Your task to perform on an android device: Is it going to rain tomorrow? Image 0: 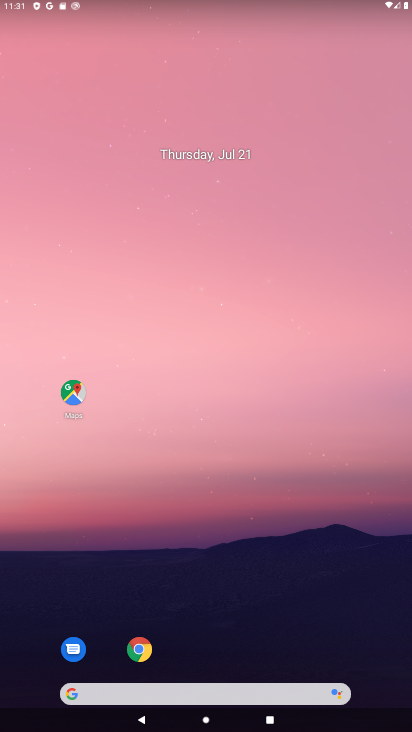
Step 0: drag from (308, 597) to (293, 130)
Your task to perform on an android device: Is it going to rain tomorrow? Image 1: 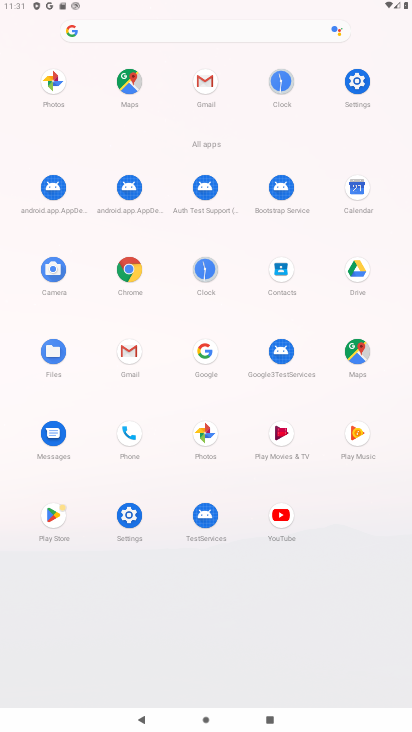
Step 1: click (125, 270)
Your task to perform on an android device: Is it going to rain tomorrow? Image 2: 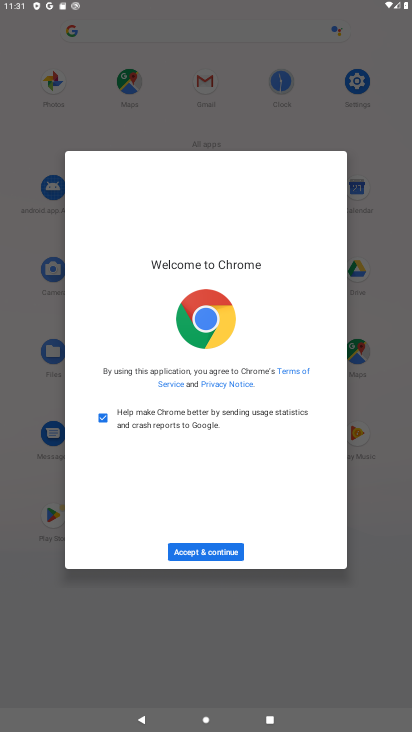
Step 2: click (197, 552)
Your task to perform on an android device: Is it going to rain tomorrow? Image 3: 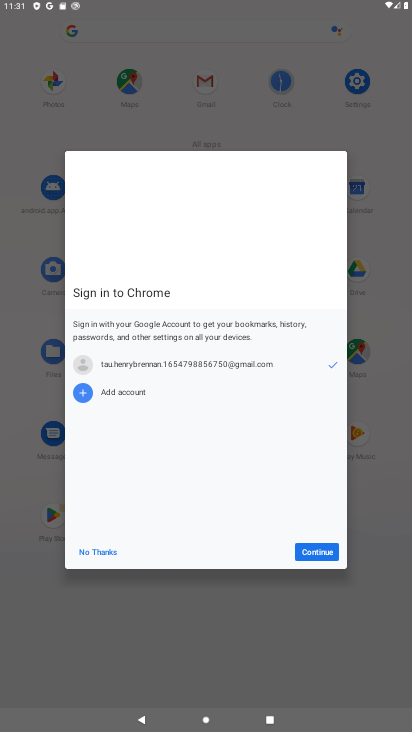
Step 3: click (319, 542)
Your task to perform on an android device: Is it going to rain tomorrow? Image 4: 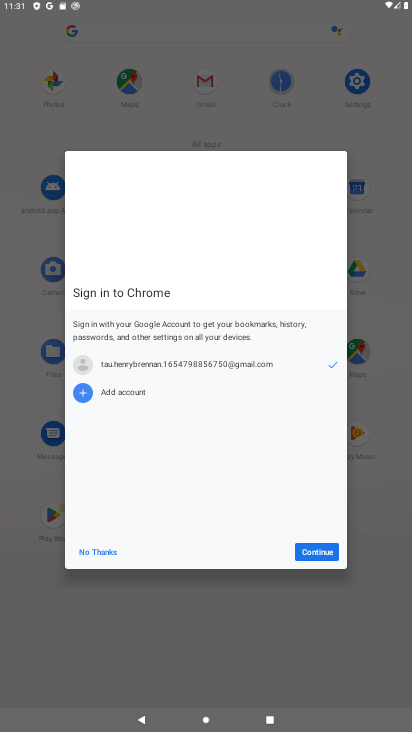
Step 4: click (319, 545)
Your task to perform on an android device: Is it going to rain tomorrow? Image 5: 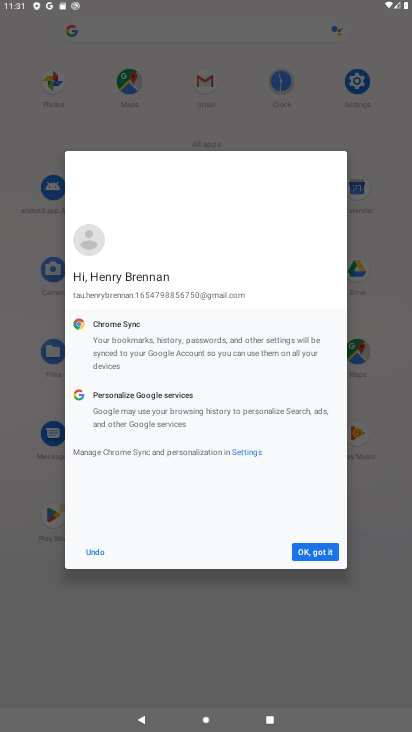
Step 5: click (322, 553)
Your task to perform on an android device: Is it going to rain tomorrow? Image 6: 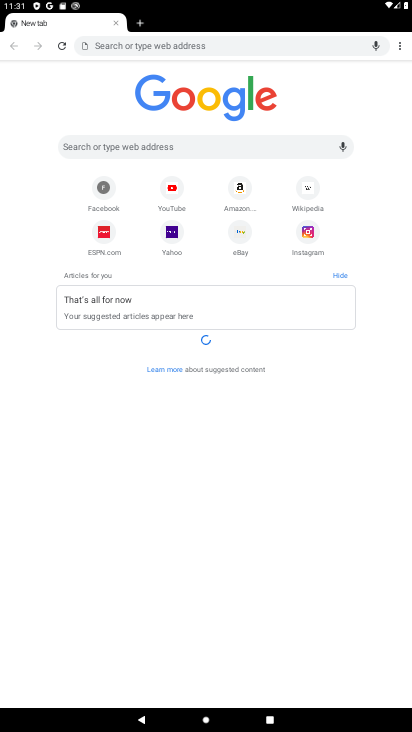
Step 6: click (201, 46)
Your task to perform on an android device: Is it going to rain tomorrow? Image 7: 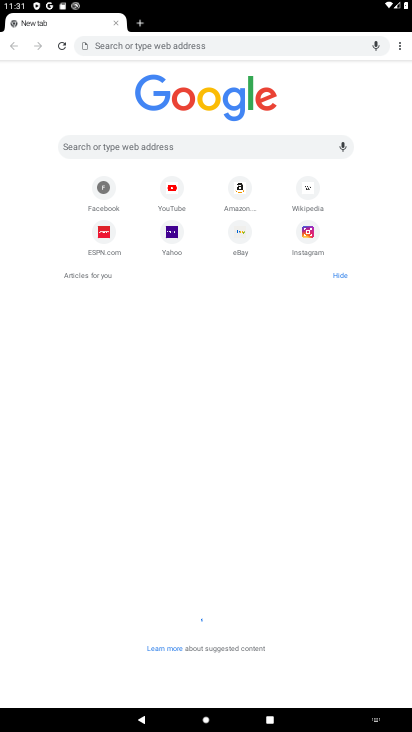
Step 7: type "weather"
Your task to perform on an android device: Is it going to rain tomorrow? Image 8: 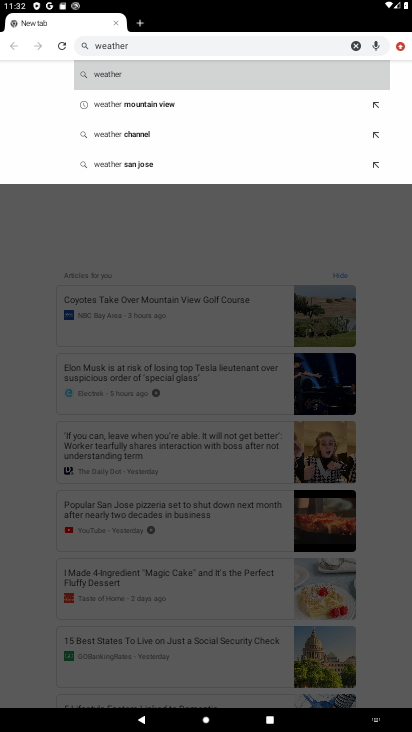
Step 8: click (117, 80)
Your task to perform on an android device: Is it going to rain tomorrow? Image 9: 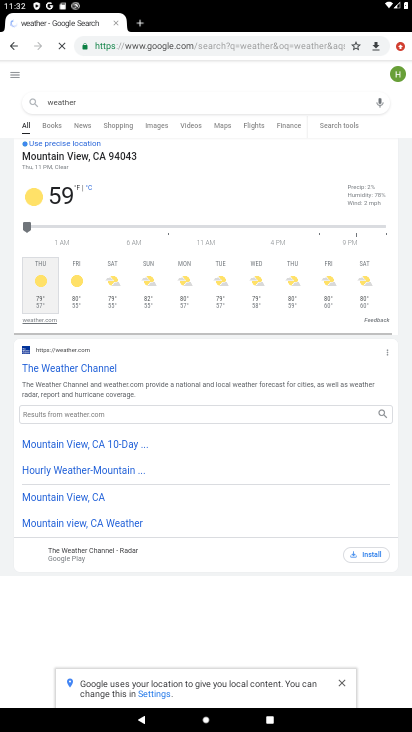
Step 9: click (84, 273)
Your task to perform on an android device: Is it going to rain tomorrow? Image 10: 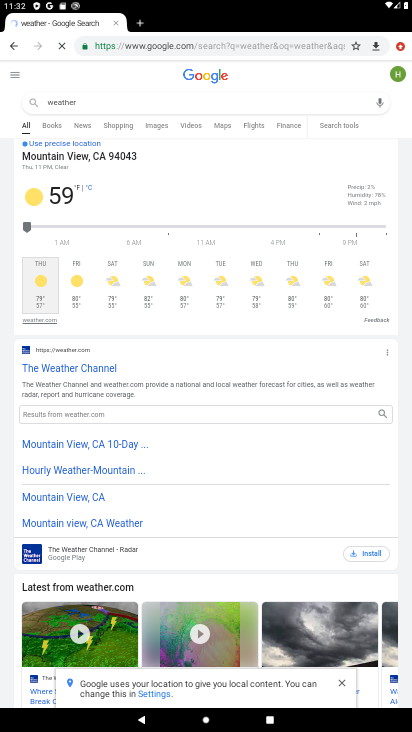
Step 10: click (80, 284)
Your task to perform on an android device: Is it going to rain tomorrow? Image 11: 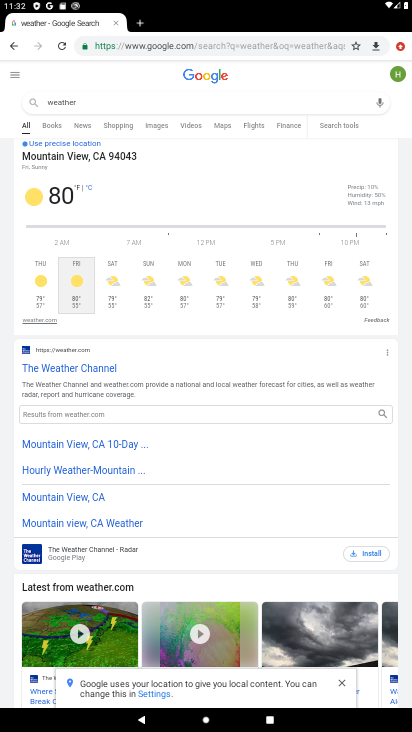
Step 11: task complete